Your task to perform on an android device: Go to wifi settings Image 0: 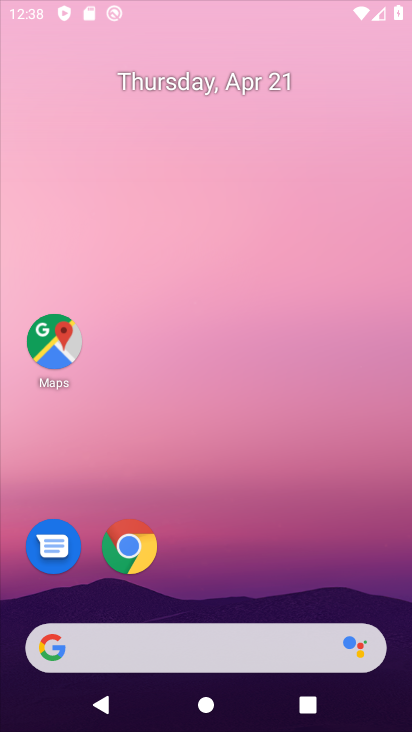
Step 0: click (281, 123)
Your task to perform on an android device: Go to wifi settings Image 1: 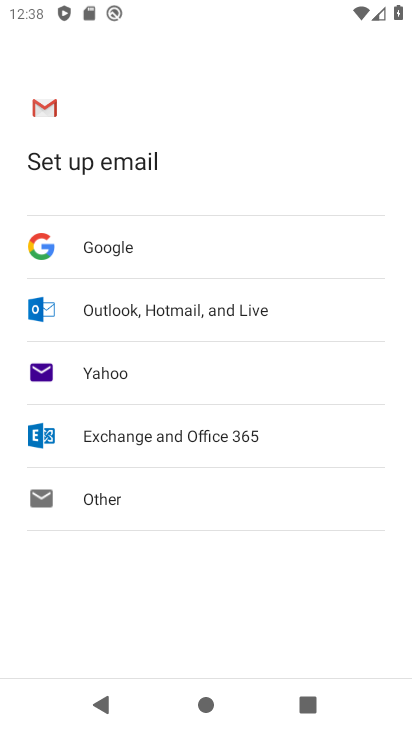
Step 1: press home button
Your task to perform on an android device: Go to wifi settings Image 2: 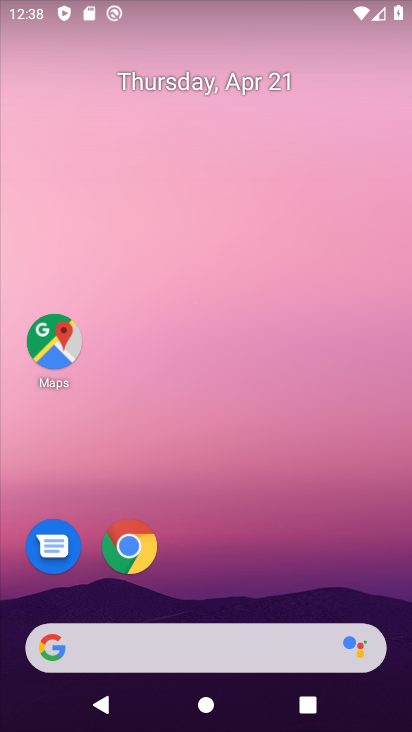
Step 2: drag from (218, 583) to (255, 150)
Your task to perform on an android device: Go to wifi settings Image 3: 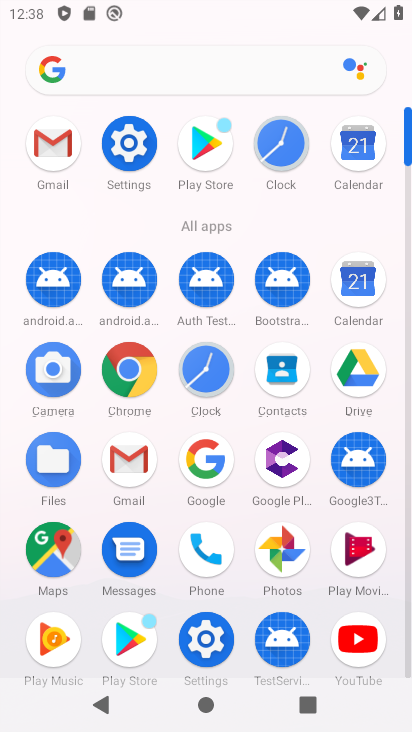
Step 3: click (137, 156)
Your task to perform on an android device: Go to wifi settings Image 4: 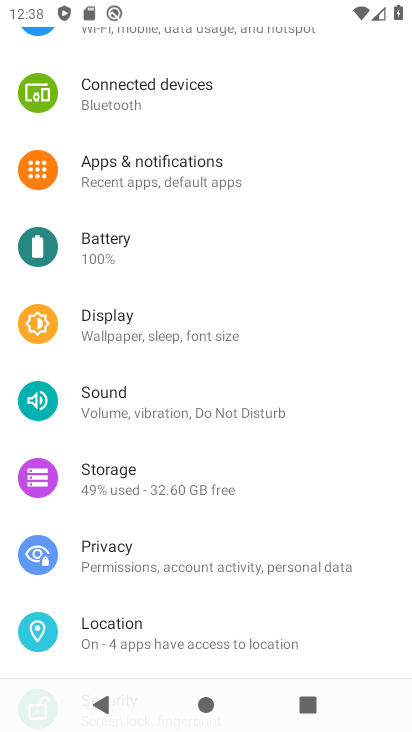
Step 4: drag from (192, 124) to (190, 485)
Your task to perform on an android device: Go to wifi settings Image 5: 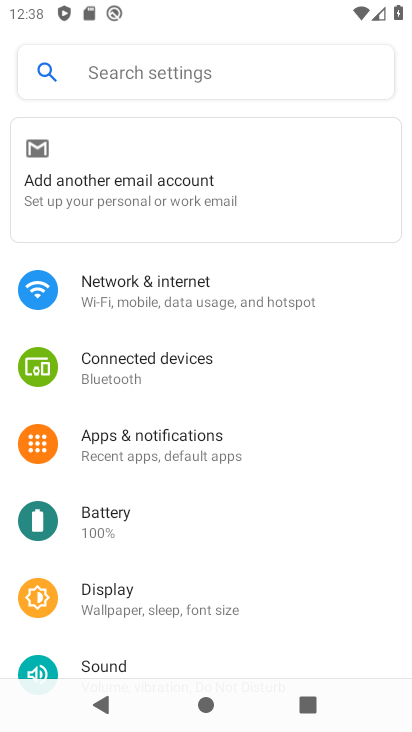
Step 5: click (169, 302)
Your task to perform on an android device: Go to wifi settings Image 6: 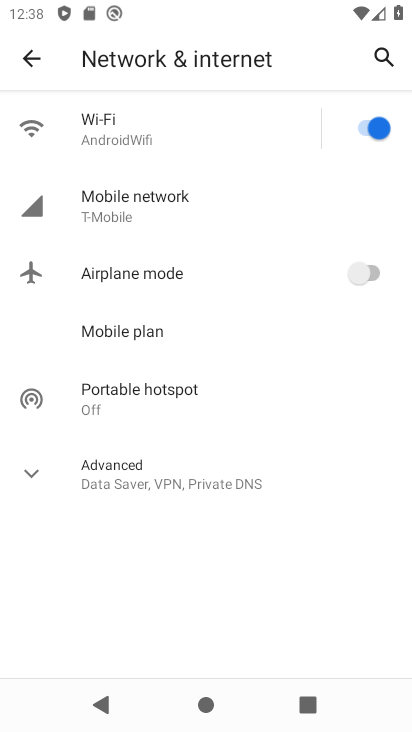
Step 6: click (158, 137)
Your task to perform on an android device: Go to wifi settings Image 7: 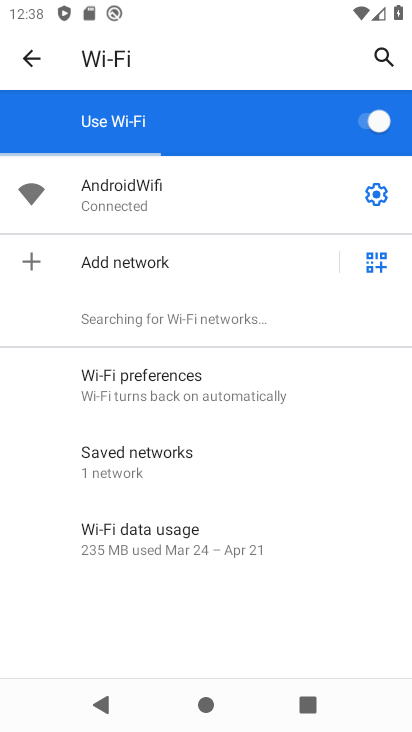
Step 7: task complete